Your task to perform on an android device: Go to network settings Image 0: 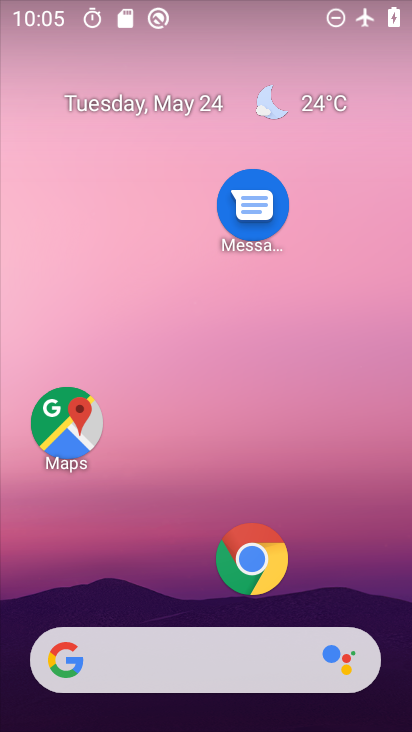
Step 0: drag from (196, 590) to (192, 14)
Your task to perform on an android device: Go to network settings Image 1: 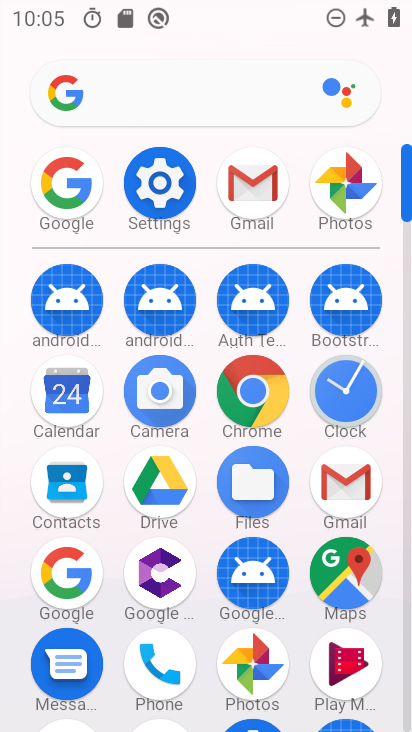
Step 1: click (162, 148)
Your task to perform on an android device: Go to network settings Image 2: 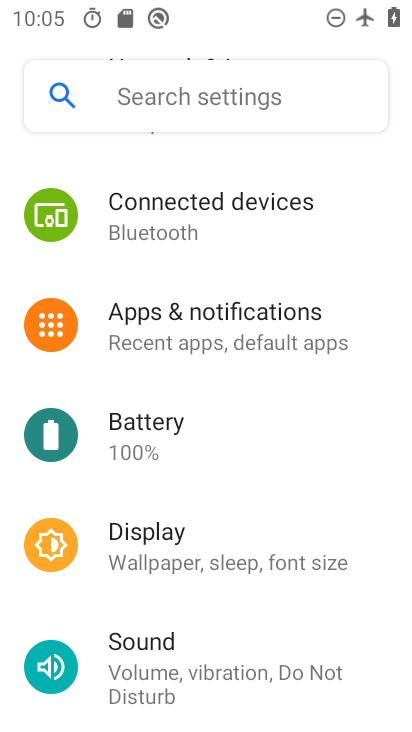
Step 2: drag from (210, 300) to (214, 610)
Your task to perform on an android device: Go to network settings Image 3: 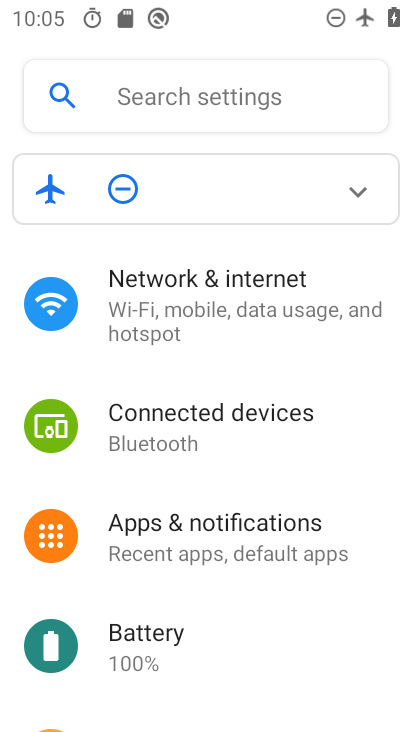
Step 3: click (227, 288)
Your task to perform on an android device: Go to network settings Image 4: 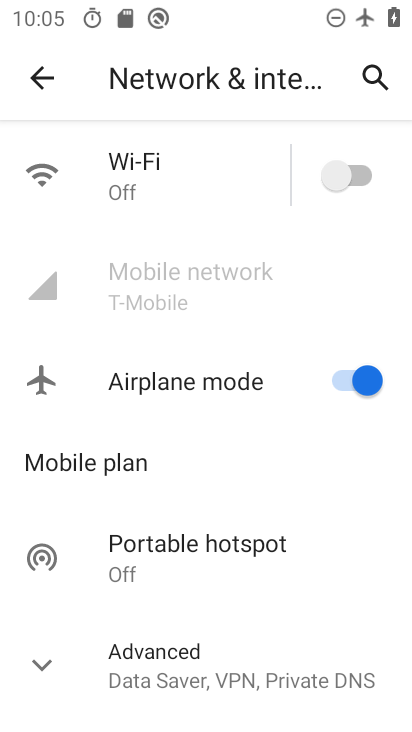
Step 4: click (202, 293)
Your task to perform on an android device: Go to network settings Image 5: 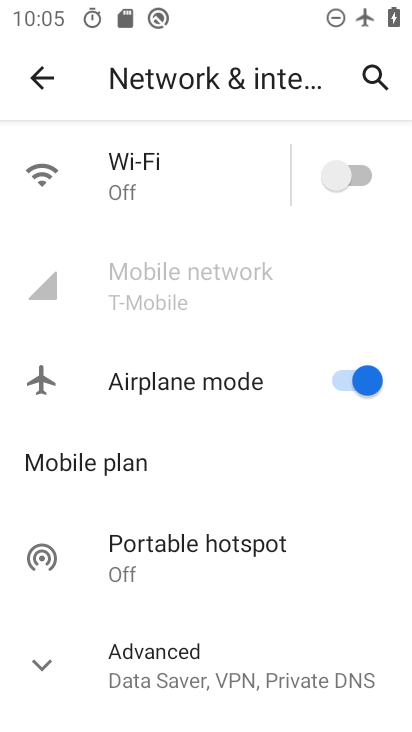
Step 5: task complete